Your task to perform on an android device: toggle airplane mode Image 0: 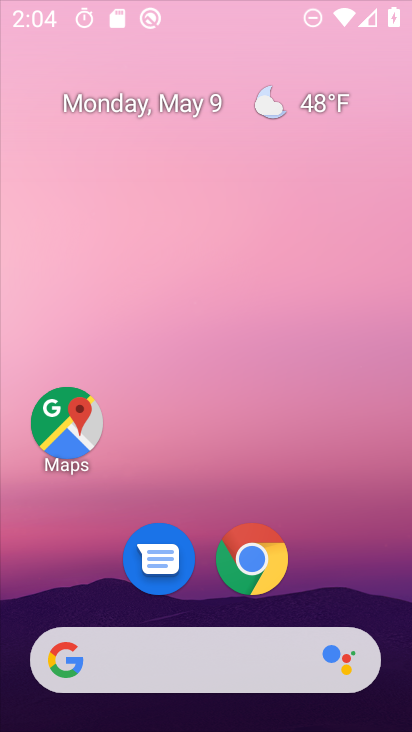
Step 0: click (381, 185)
Your task to perform on an android device: toggle airplane mode Image 1: 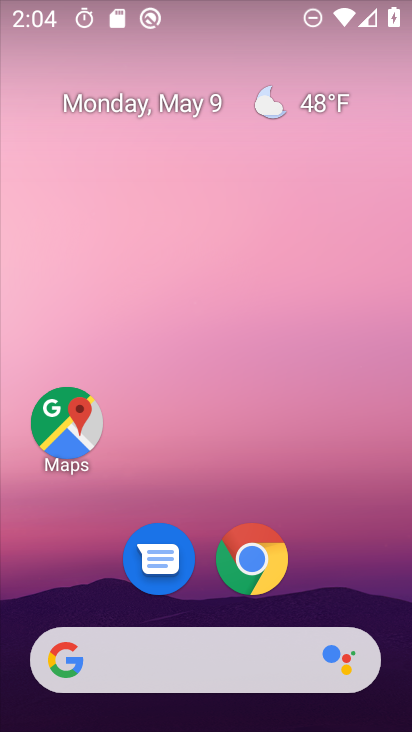
Step 1: drag from (226, 576) to (323, 187)
Your task to perform on an android device: toggle airplane mode Image 2: 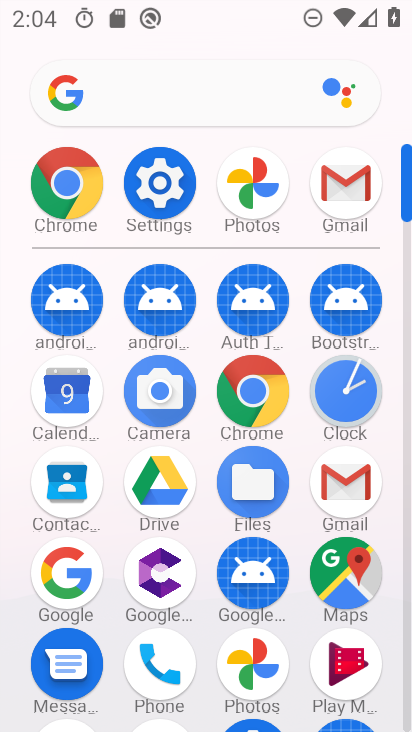
Step 2: click (169, 195)
Your task to perform on an android device: toggle airplane mode Image 3: 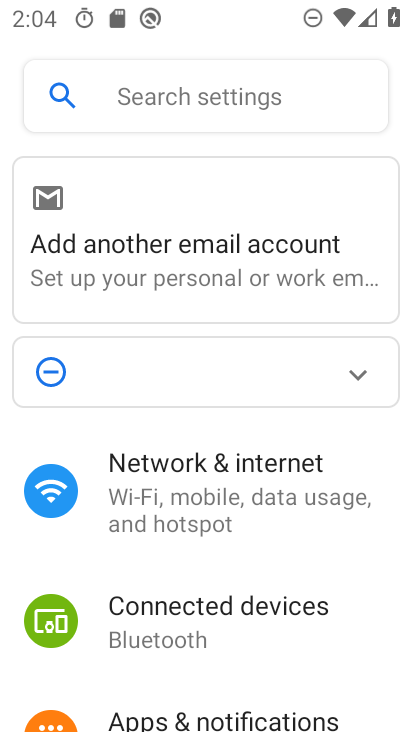
Step 3: drag from (213, 614) to (288, 276)
Your task to perform on an android device: toggle airplane mode Image 4: 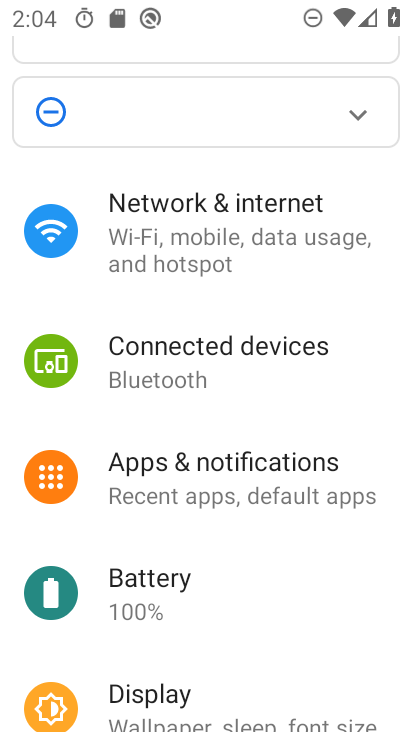
Step 4: click (228, 260)
Your task to perform on an android device: toggle airplane mode Image 5: 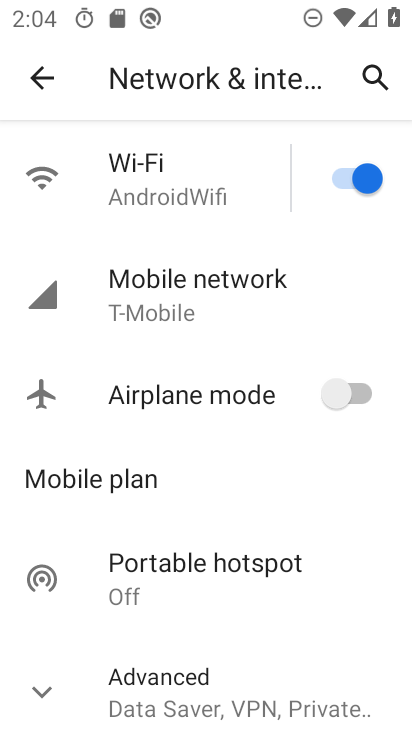
Step 5: drag from (172, 577) to (238, 243)
Your task to perform on an android device: toggle airplane mode Image 6: 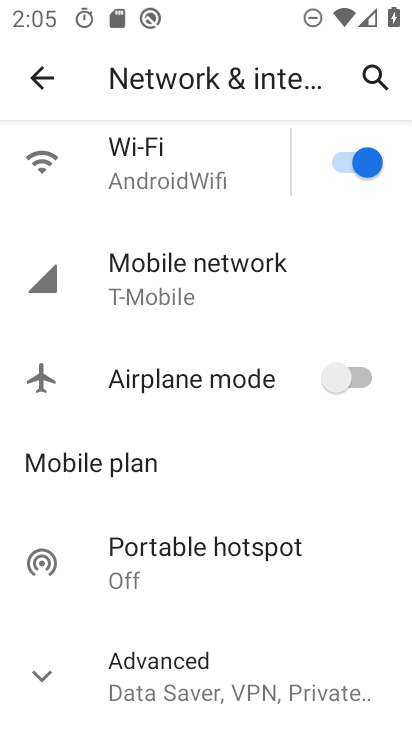
Step 6: click (204, 383)
Your task to perform on an android device: toggle airplane mode Image 7: 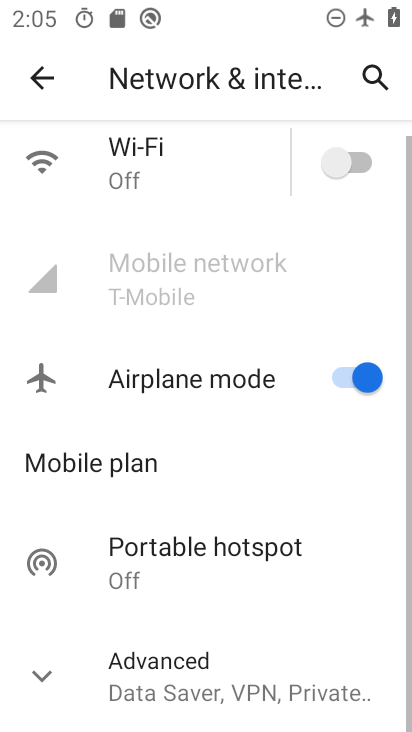
Step 7: task complete